Your task to perform on an android device: Go to display settings Image 0: 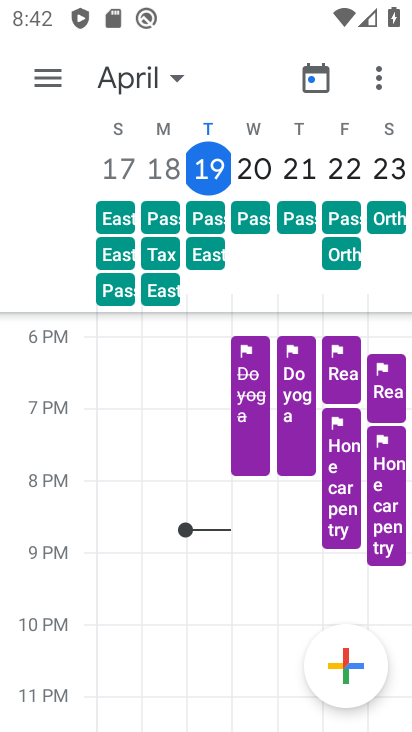
Step 0: press home button
Your task to perform on an android device: Go to display settings Image 1: 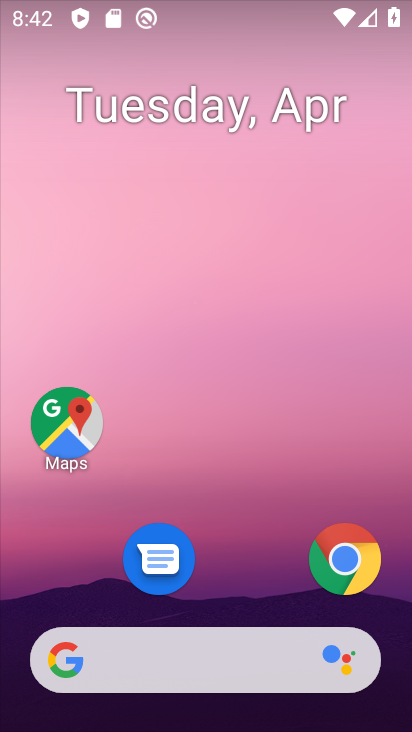
Step 1: drag from (240, 703) to (253, 103)
Your task to perform on an android device: Go to display settings Image 2: 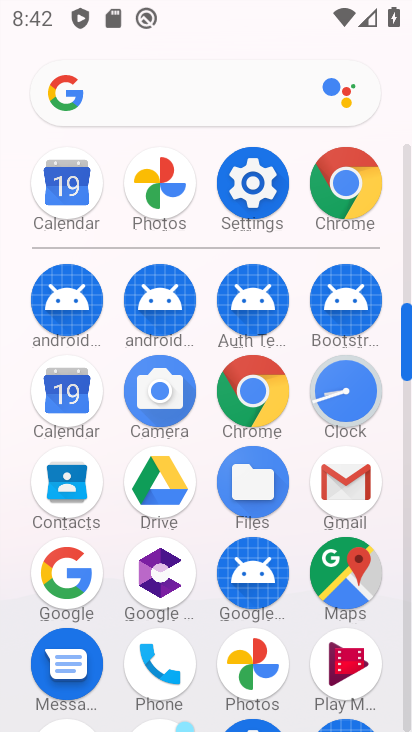
Step 2: click (247, 201)
Your task to perform on an android device: Go to display settings Image 3: 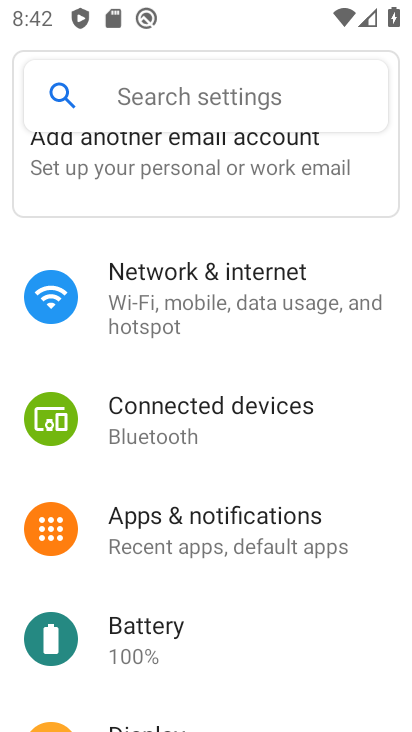
Step 3: click (152, 723)
Your task to perform on an android device: Go to display settings Image 4: 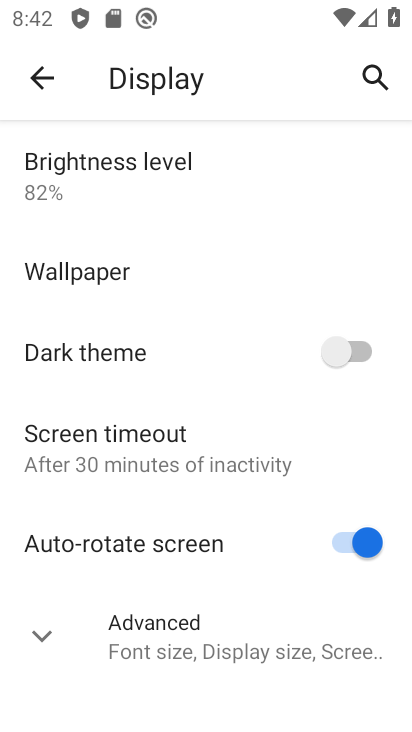
Step 4: task complete